Your task to perform on an android device: Empty the shopping cart on target. Search for "razer huntsman" on target, select the first entry, add it to the cart, then select checkout. Image 0: 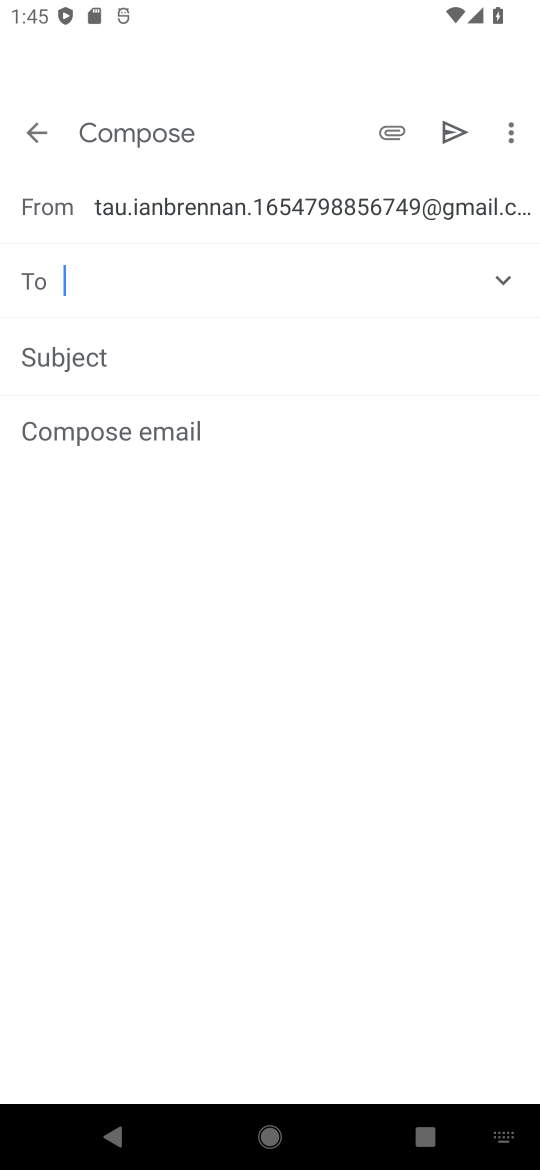
Step 0: press home button
Your task to perform on an android device: Empty the shopping cart on target. Search for "razer huntsman" on target, select the first entry, add it to the cart, then select checkout. Image 1: 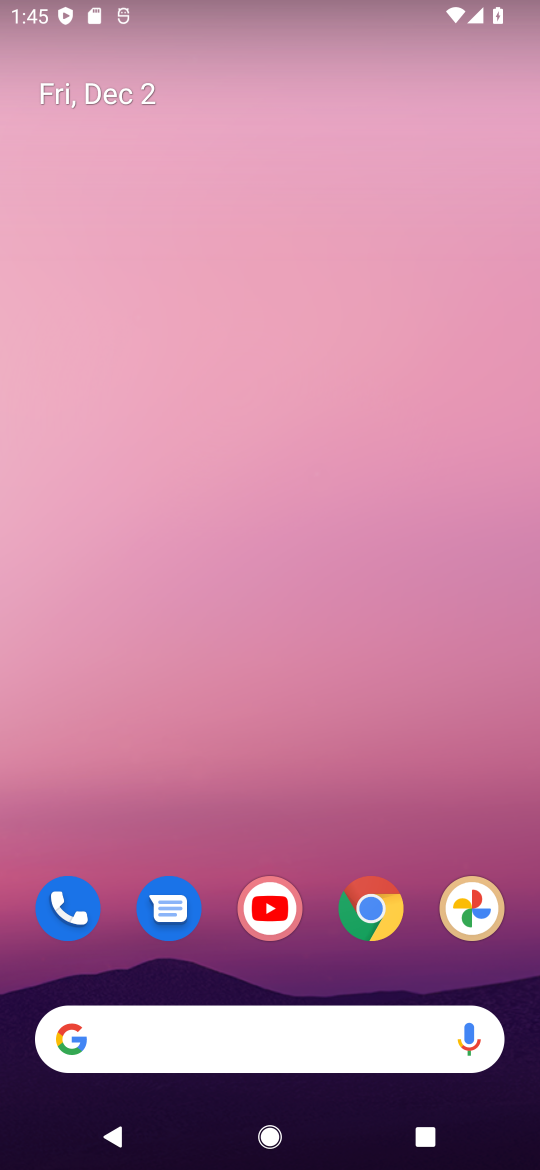
Step 1: drag from (321, 1009) to (377, 299)
Your task to perform on an android device: Empty the shopping cart on target. Search for "razer huntsman" on target, select the first entry, add it to the cart, then select checkout. Image 2: 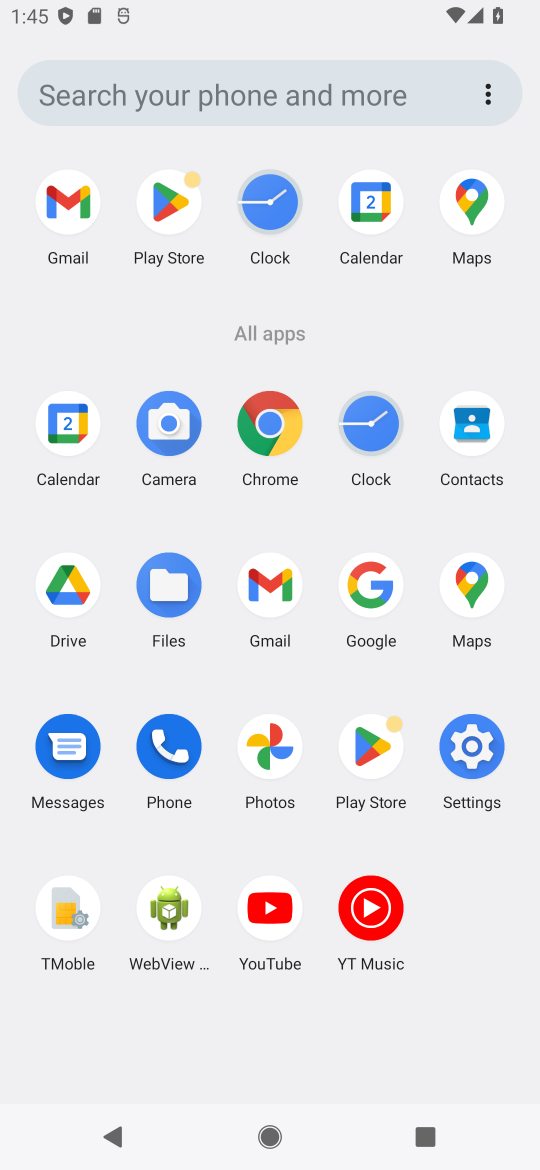
Step 2: click (360, 578)
Your task to perform on an android device: Empty the shopping cart on target. Search for "razer huntsman" on target, select the first entry, add it to the cart, then select checkout. Image 3: 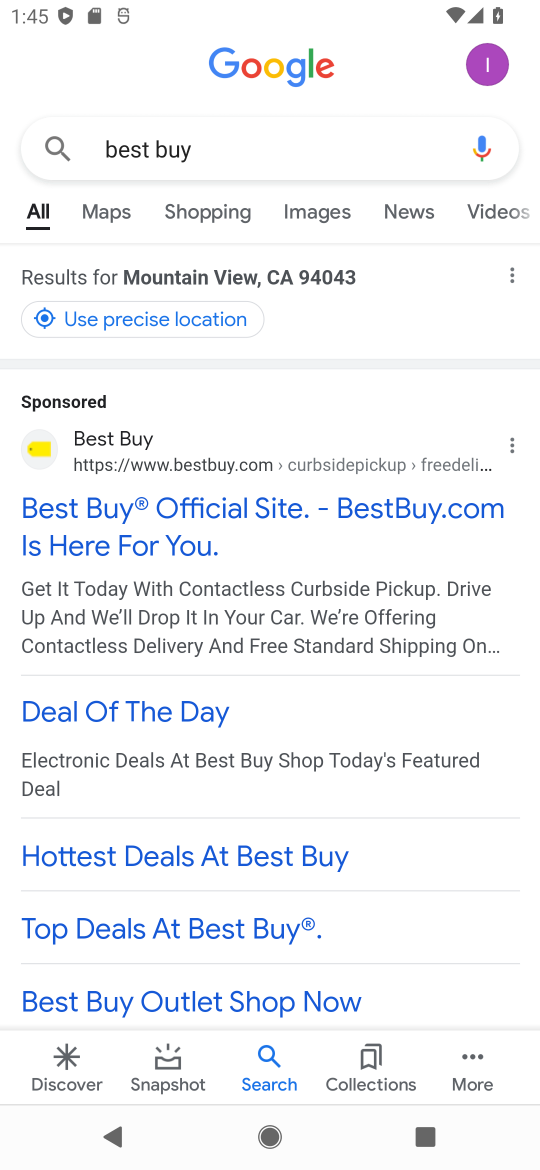
Step 3: click (170, 147)
Your task to perform on an android device: Empty the shopping cart on target. Search for "razer huntsman" on target, select the first entry, add it to the cart, then select checkout. Image 4: 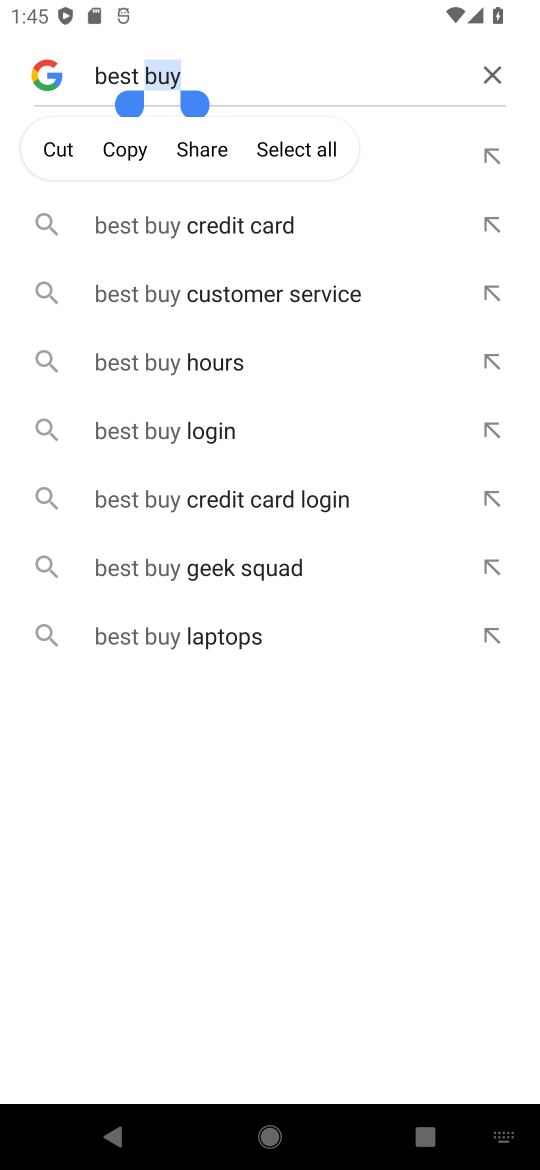
Step 4: click (492, 73)
Your task to perform on an android device: Empty the shopping cart on target. Search for "razer huntsman" on target, select the first entry, add it to the cart, then select checkout. Image 5: 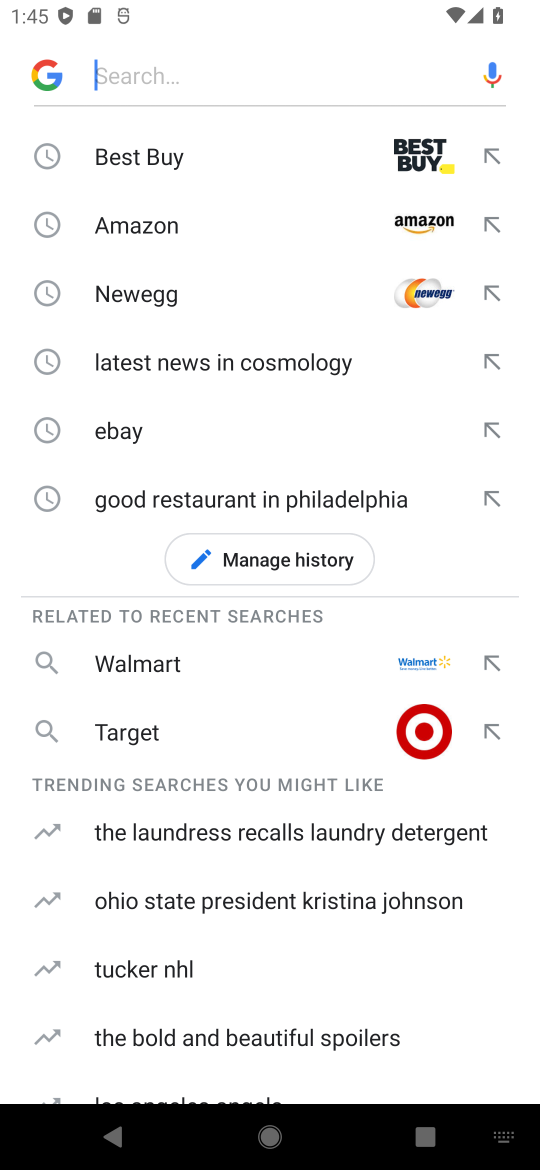
Step 5: click (152, 722)
Your task to perform on an android device: Empty the shopping cart on target. Search for "razer huntsman" on target, select the first entry, add it to the cart, then select checkout. Image 6: 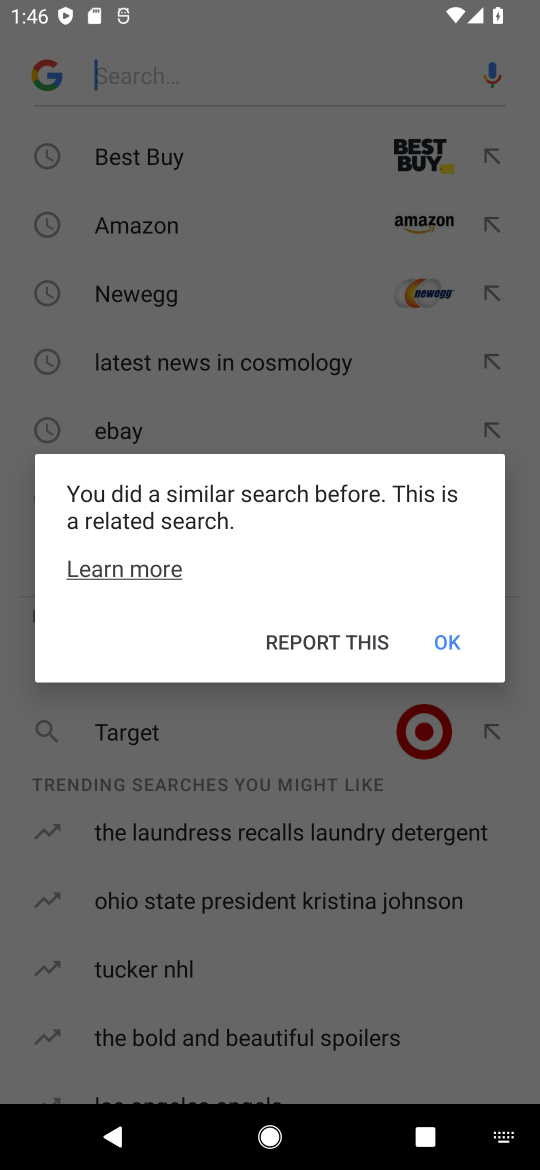
Step 6: click (461, 638)
Your task to perform on an android device: Empty the shopping cart on target. Search for "razer huntsman" on target, select the first entry, add it to the cart, then select checkout. Image 7: 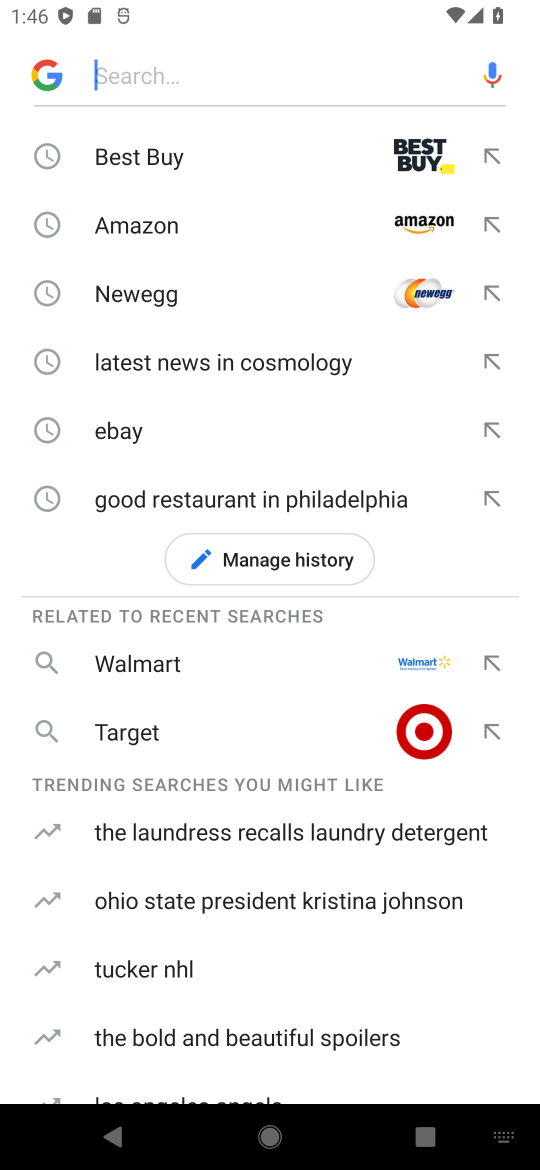
Step 7: click (492, 729)
Your task to perform on an android device: Empty the shopping cart on target. Search for "razer huntsman" on target, select the first entry, add it to the cart, then select checkout. Image 8: 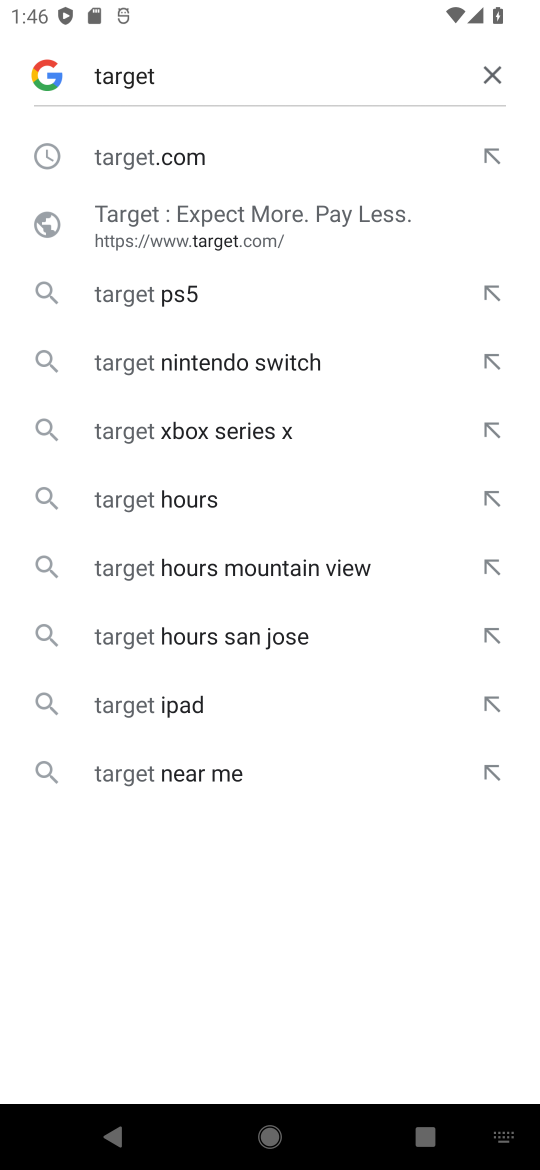
Step 8: click (162, 152)
Your task to perform on an android device: Empty the shopping cart on target. Search for "razer huntsman" on target, select the first entry, add it to the cart, then select checkout. Image 9: 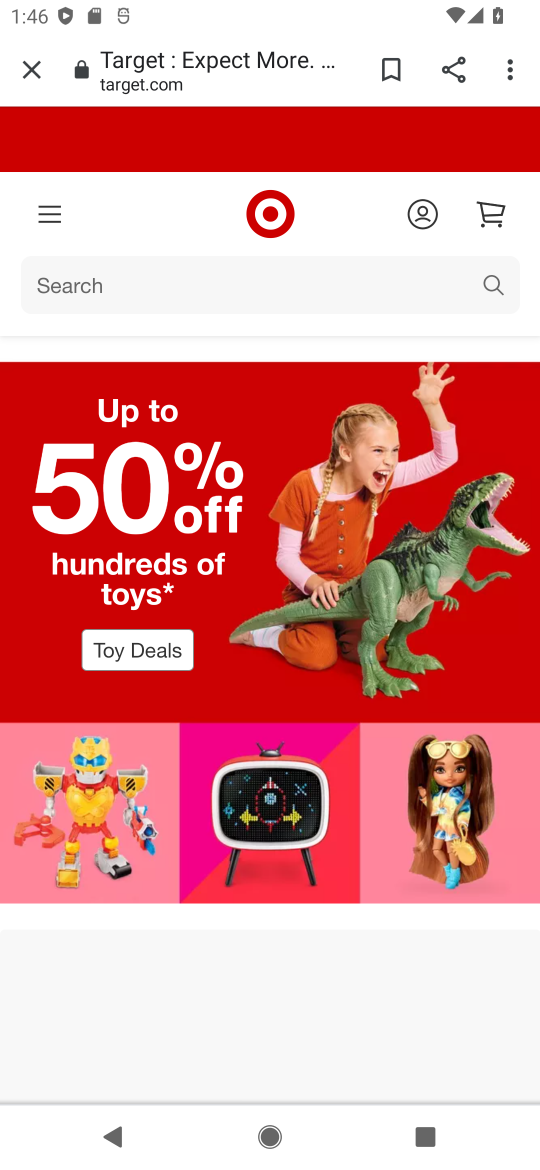
Step 9: click (214, 291)
Your task to perform on an android device: Empty the shopping cart on target. Search for "razer huntsman" on target, select the first entry, add it to the cart, then select checkout. Image 10: 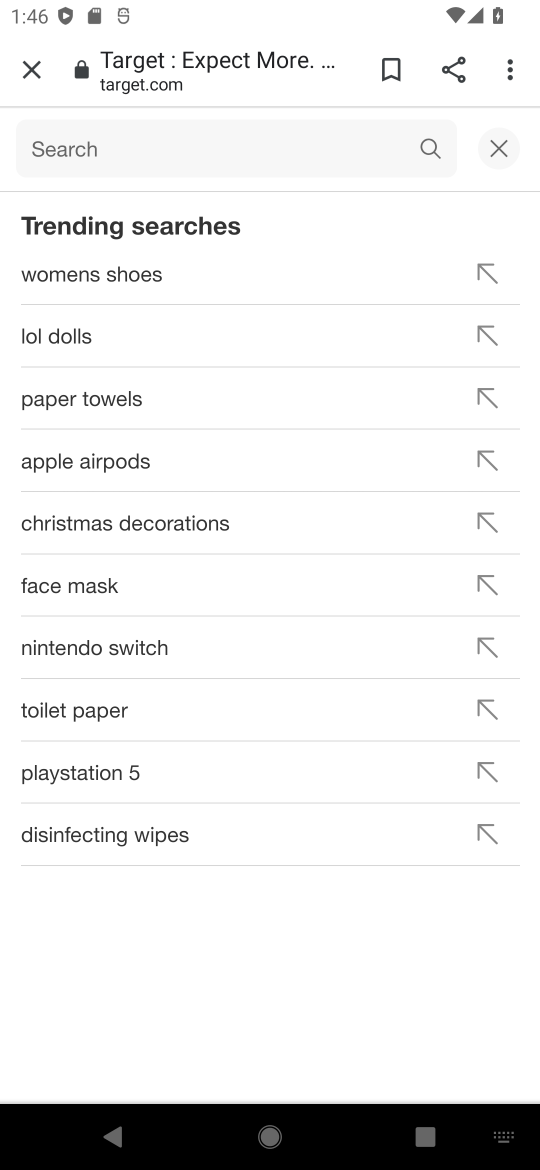
Step 10: type "razer huntsman"
Your task to perform on an android device: Empty the shopping cart on target. Search for "razer huntsman" on target, select the first entry, add it to the cart, then select checkout. Image 11: 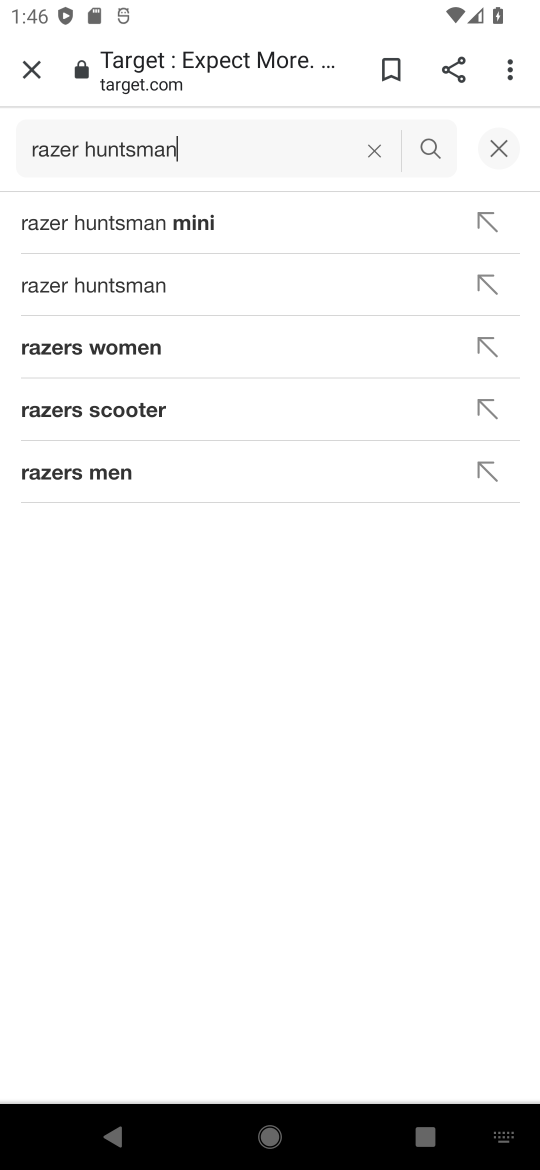
Step 11: click (139, 226)
Your task to perform on an android device: Empty the shopping cart on target. Search for "razer huntsman" on target, select the first entry, add it to the cart, then select checkout. Image 12: 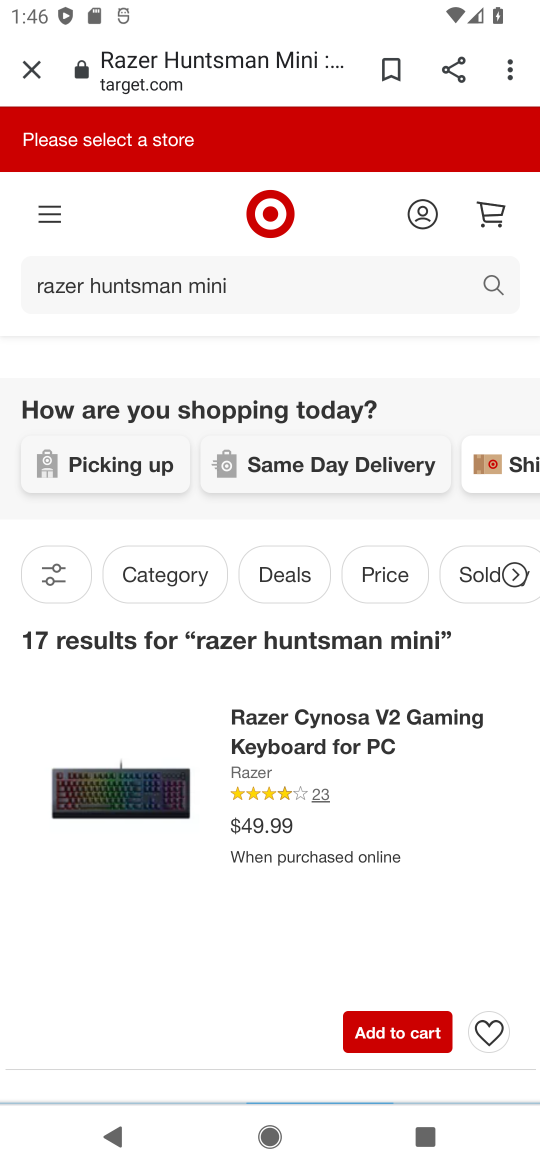
Step 12: click (277, 746)
Your task to perform on an android device: Empty the shopping cart on target. Search for "razer huntsman" on target, select the first entry, add it to the cart, then select checkout. Image 13: 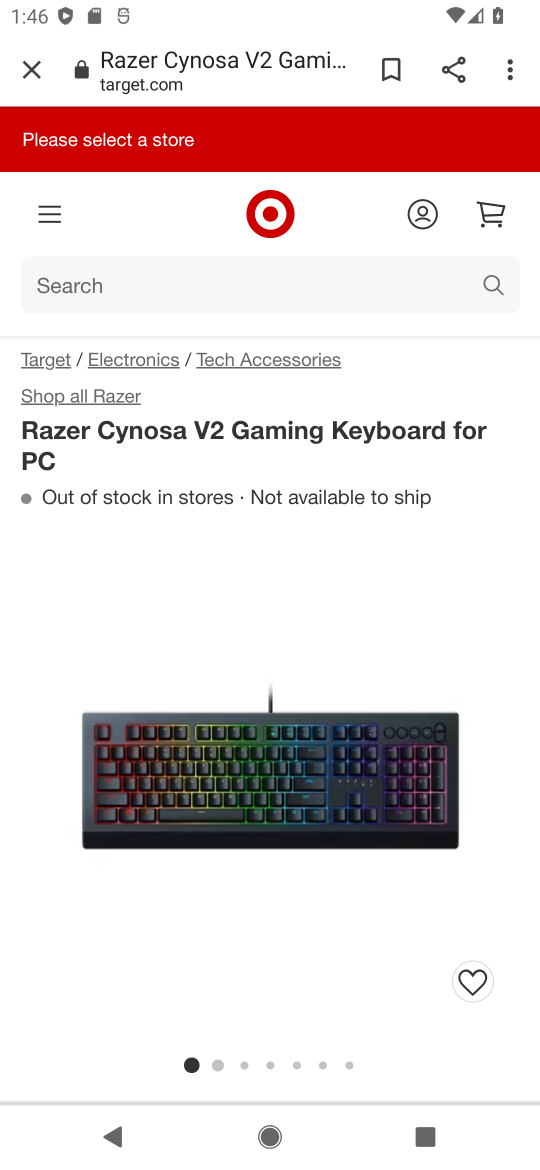
Step 13: drag from (290, 431) to (290, 324)
Your task to perform on an android device: Empty the shopping cart on target. Search for "razer huntsman" on target, select the first entry, add it to the cart, then select checkout. Image 14: 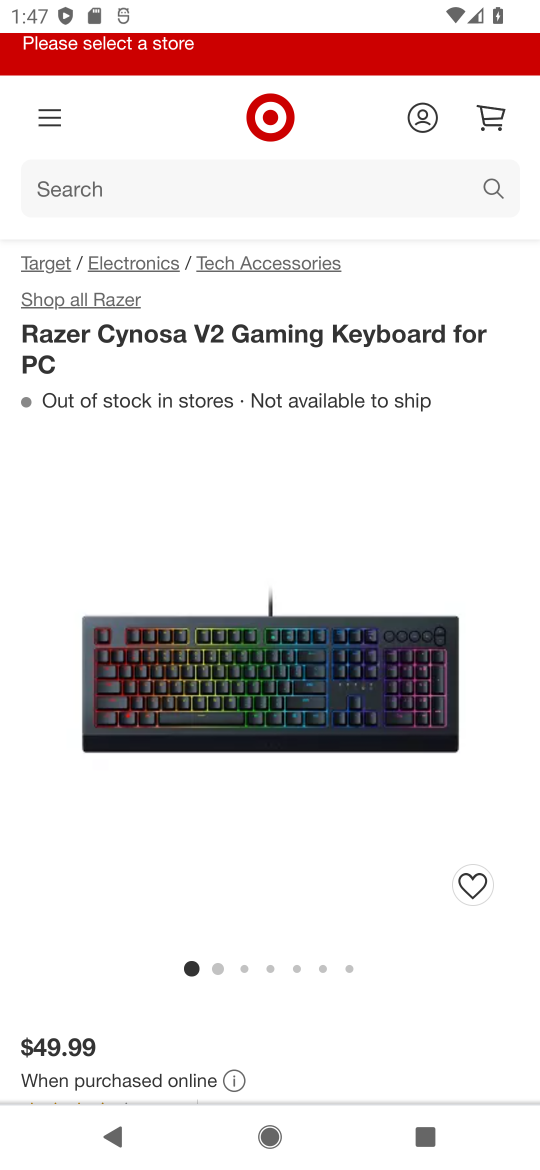
Step 14: drag from (322, 1020) to (272, 603)
Your task to perform on an android device: Empty the shopping cart on target. Search for "razer huntsman" on target, select the first entry, add it to the cart, then select checkout. Image 15: 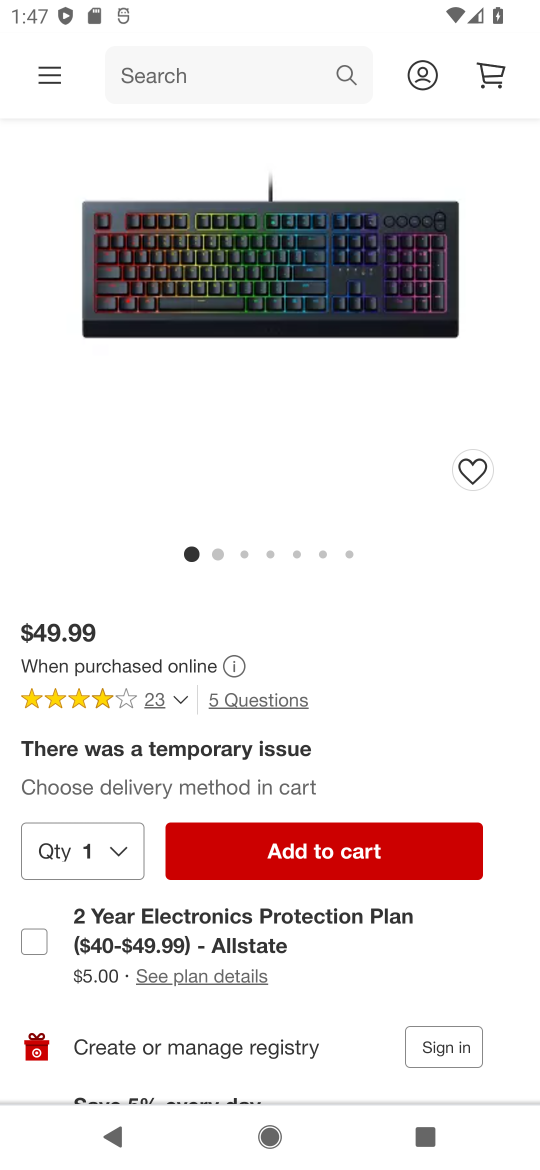
Step 15: click (321, 844)
Your task to perform on an android device: Empty the shopping cart on target. Search for "razer huntsman" on target, select the first entry, add it to the cart, then select checkout. Image 16: 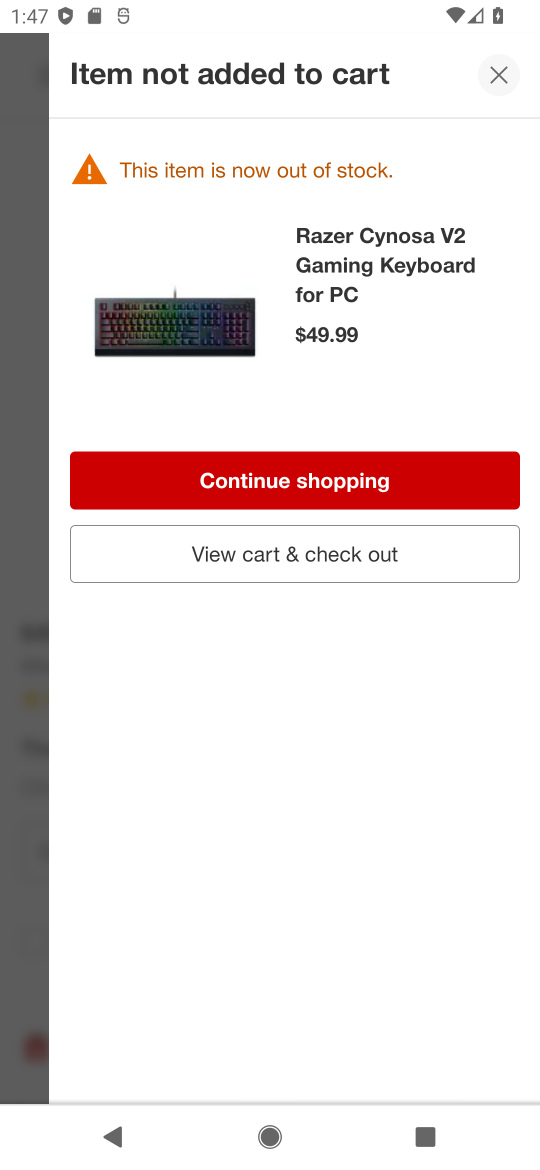
Step 16: task complete